Your task to perform on an android device: turn notification dots off Image 0: 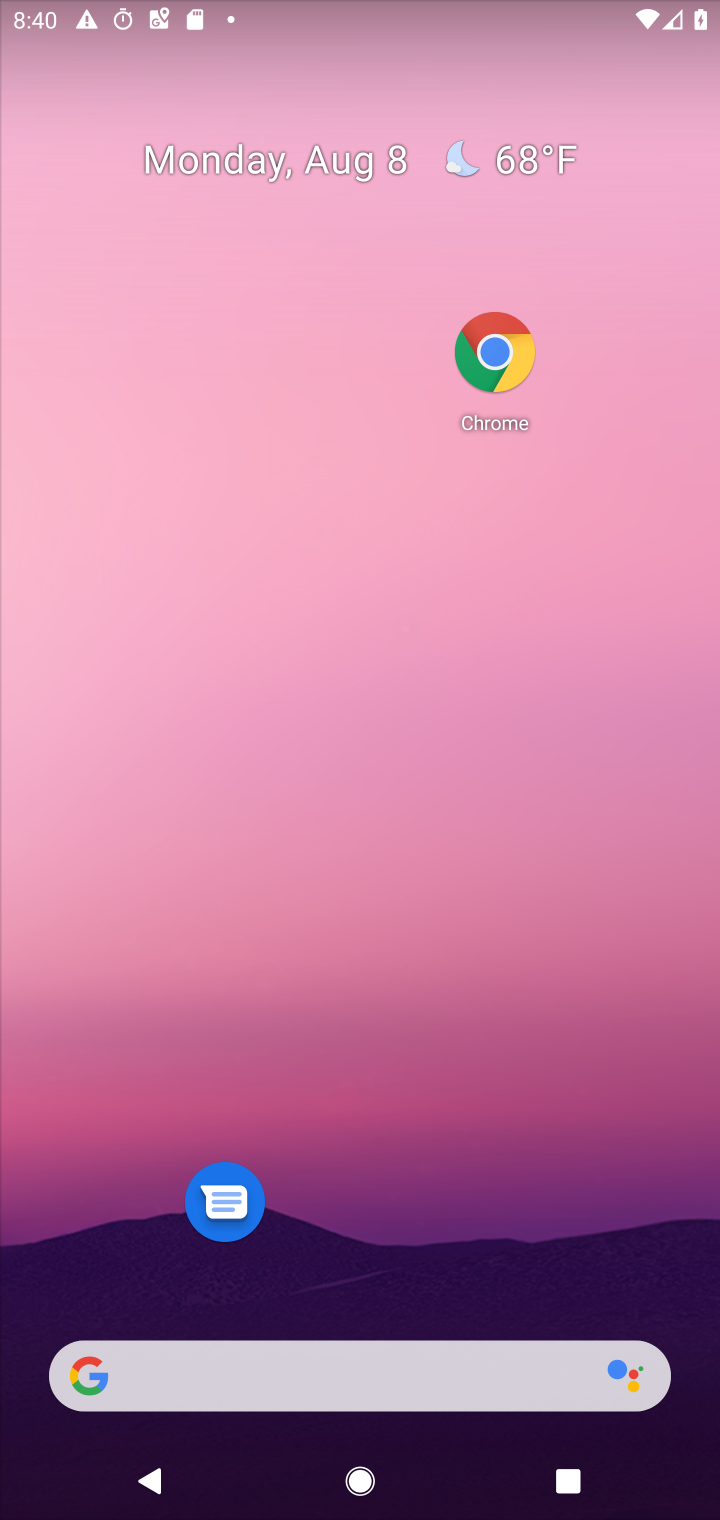
Step 0: drag from (340, 961) to (470, 223)
Your task to perform on an android device: turn notification dots off Image 1: 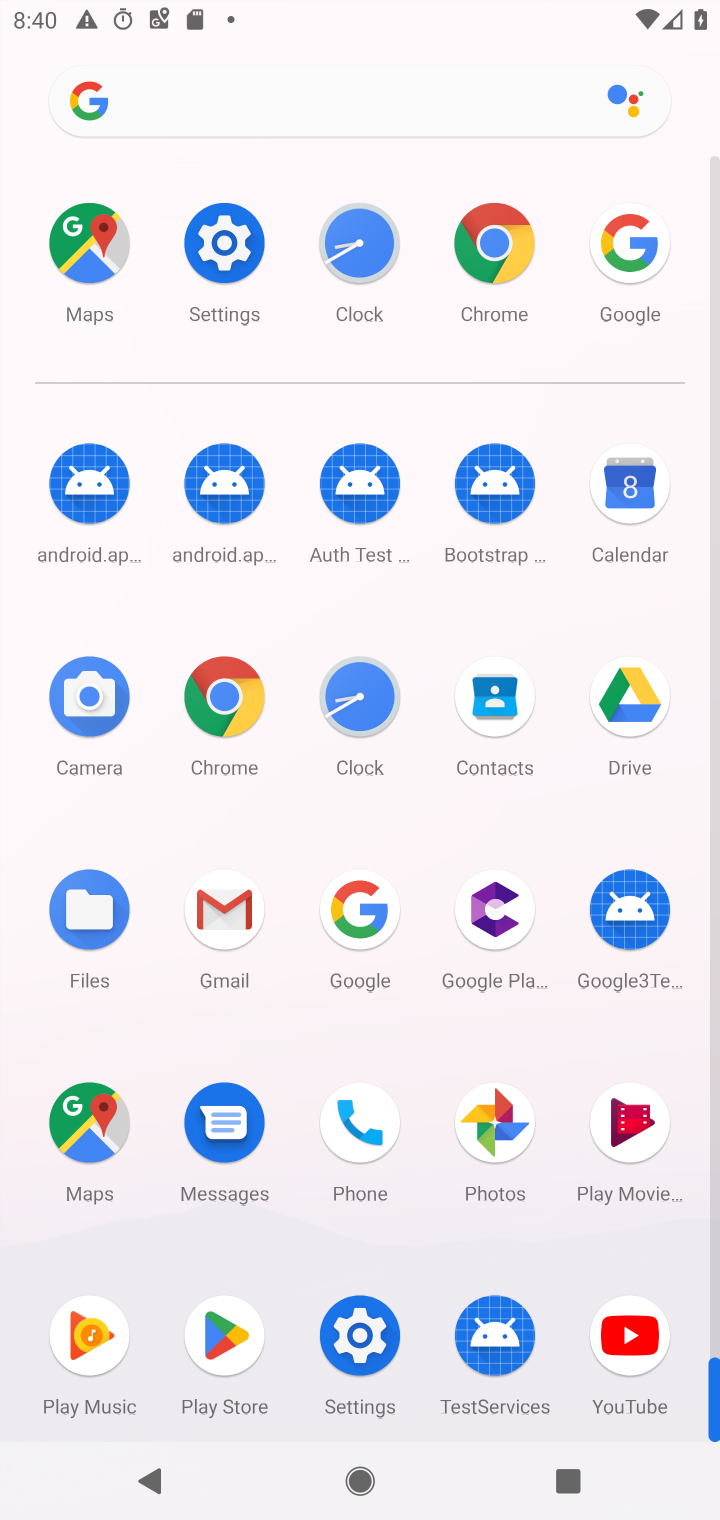
Step 1: click (238, 239)
Your task to perform on an android device: turn notification dots off Image 2: 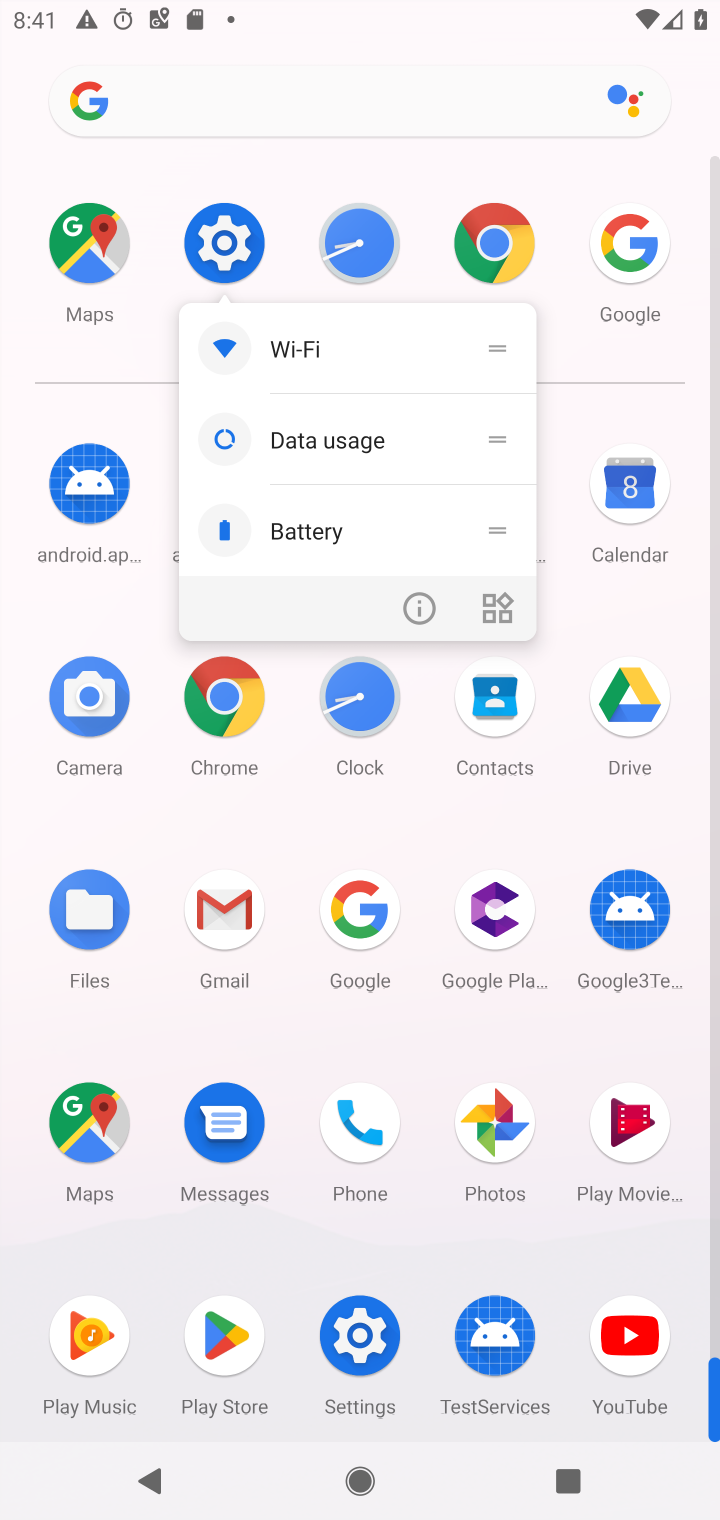
Step 2: click (209, 249)
Your task to perform on an android device: turn notification dots off Image 3: 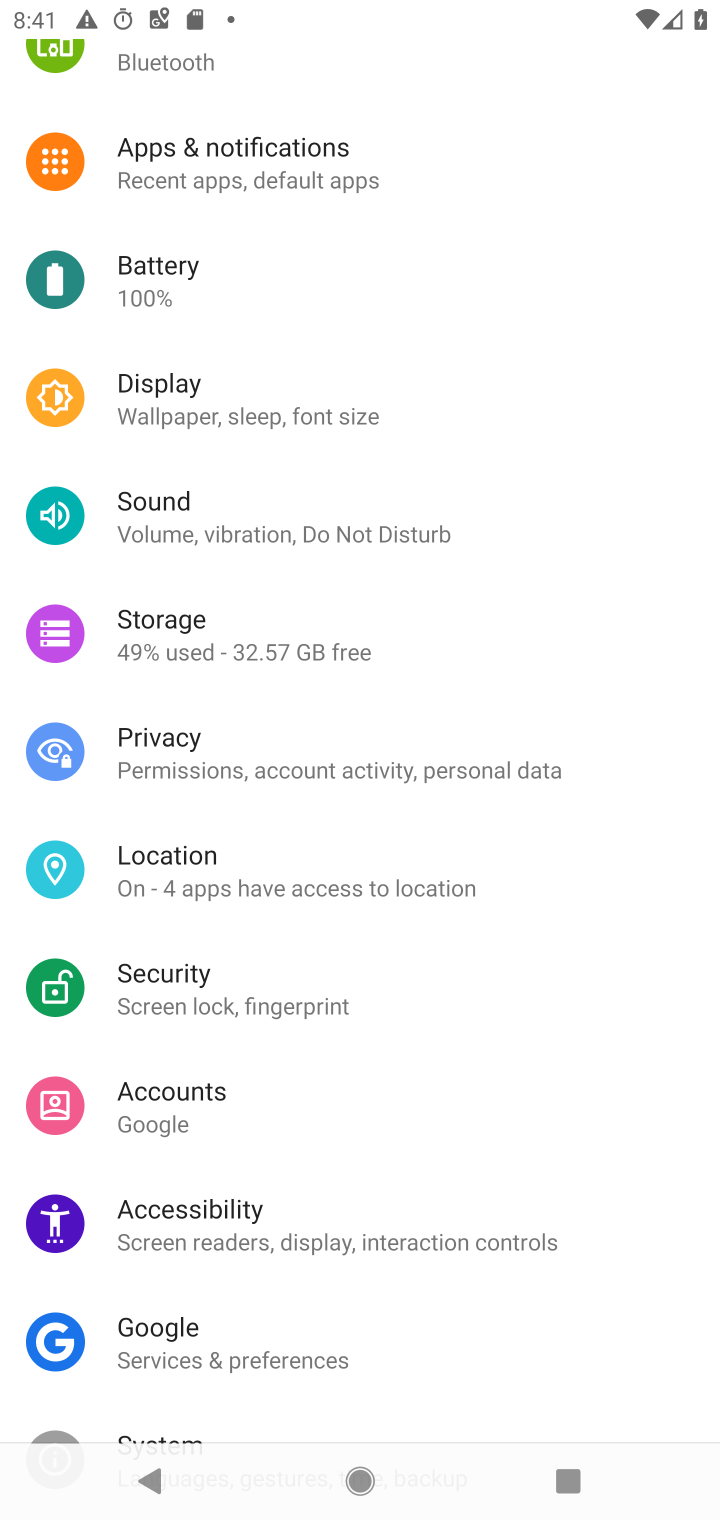
Step 3: click (293, 182)
Your task to perform on an android device: turn notification dots off Image 4: 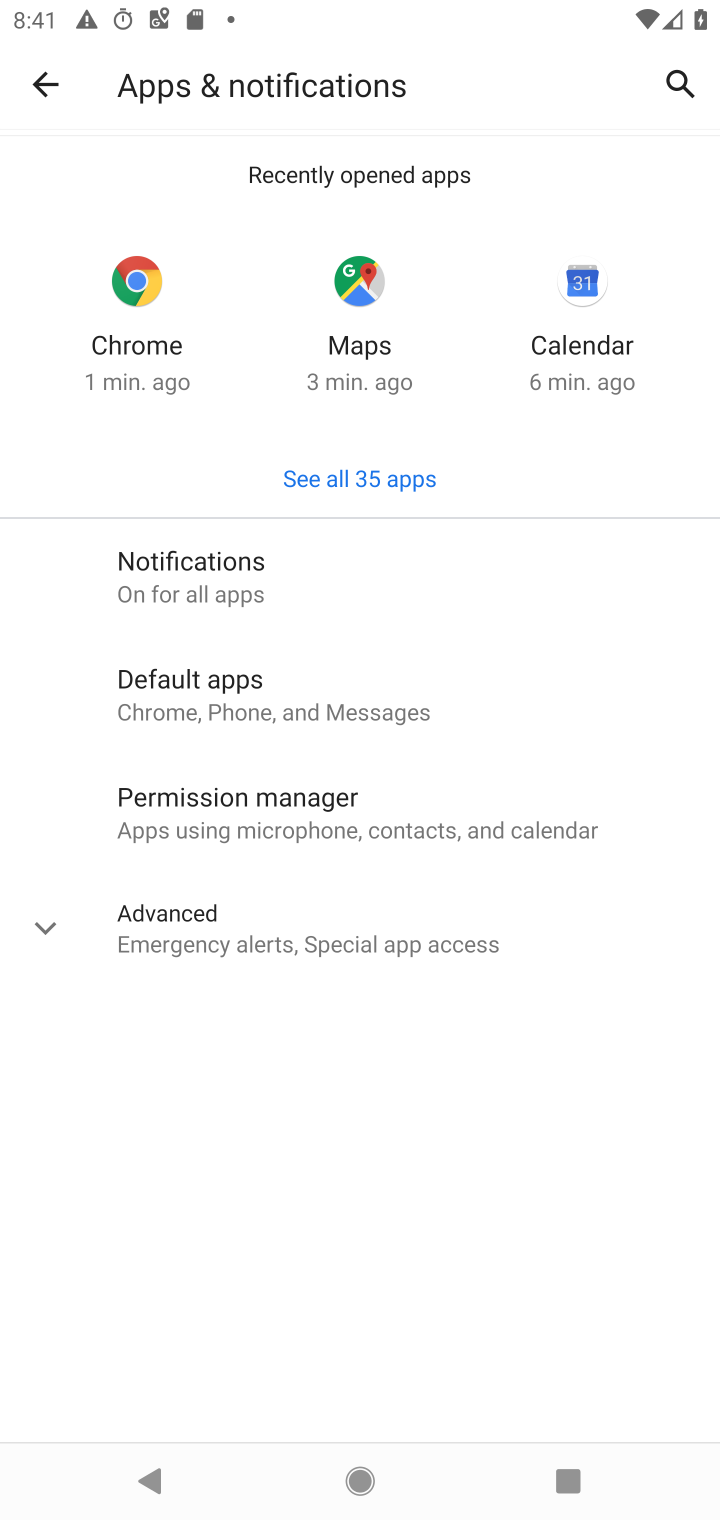
Step 4: click (315, 592)
Your task to perform on an android device: turn notification dots off Image 5: 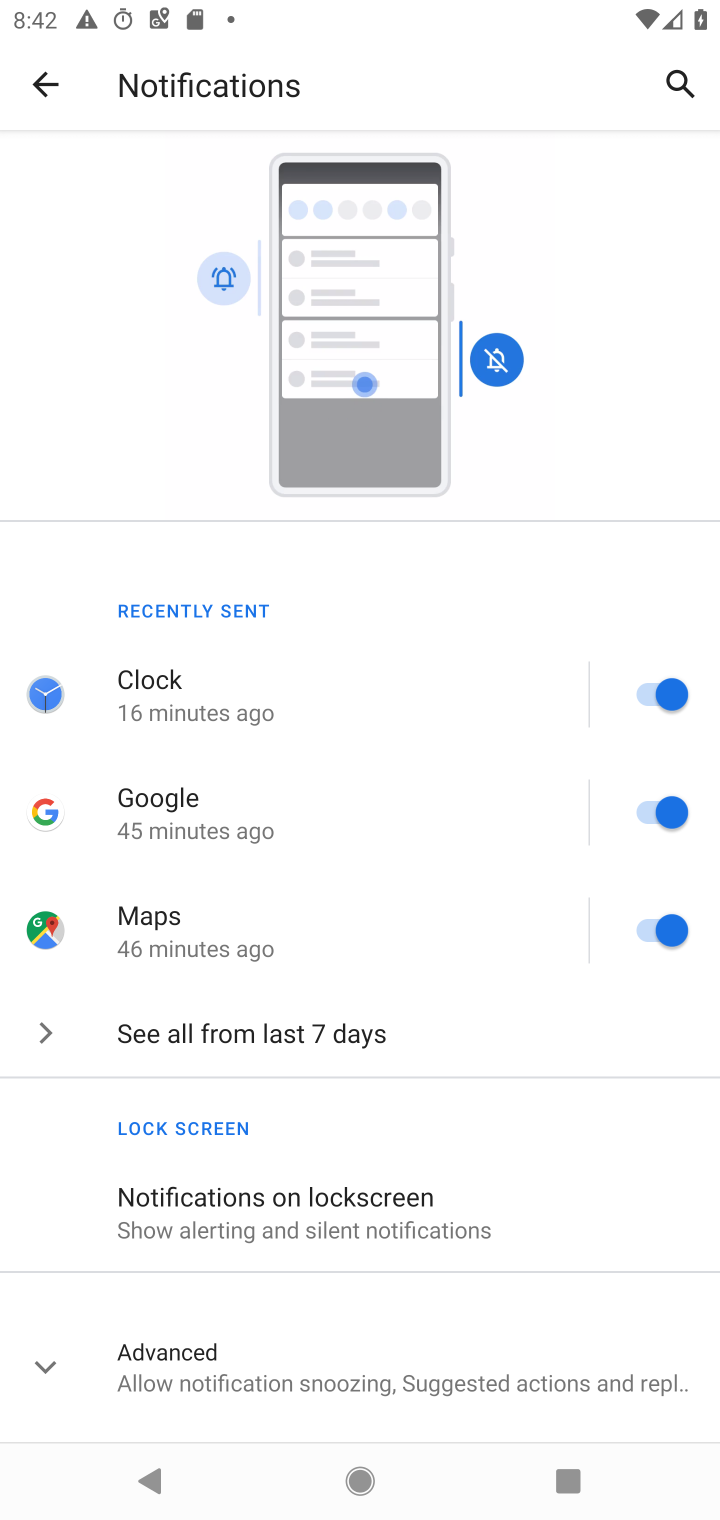
Step 5: click (324, 1365)
Your task to perform on an android device: turn notification dots off Image 6: 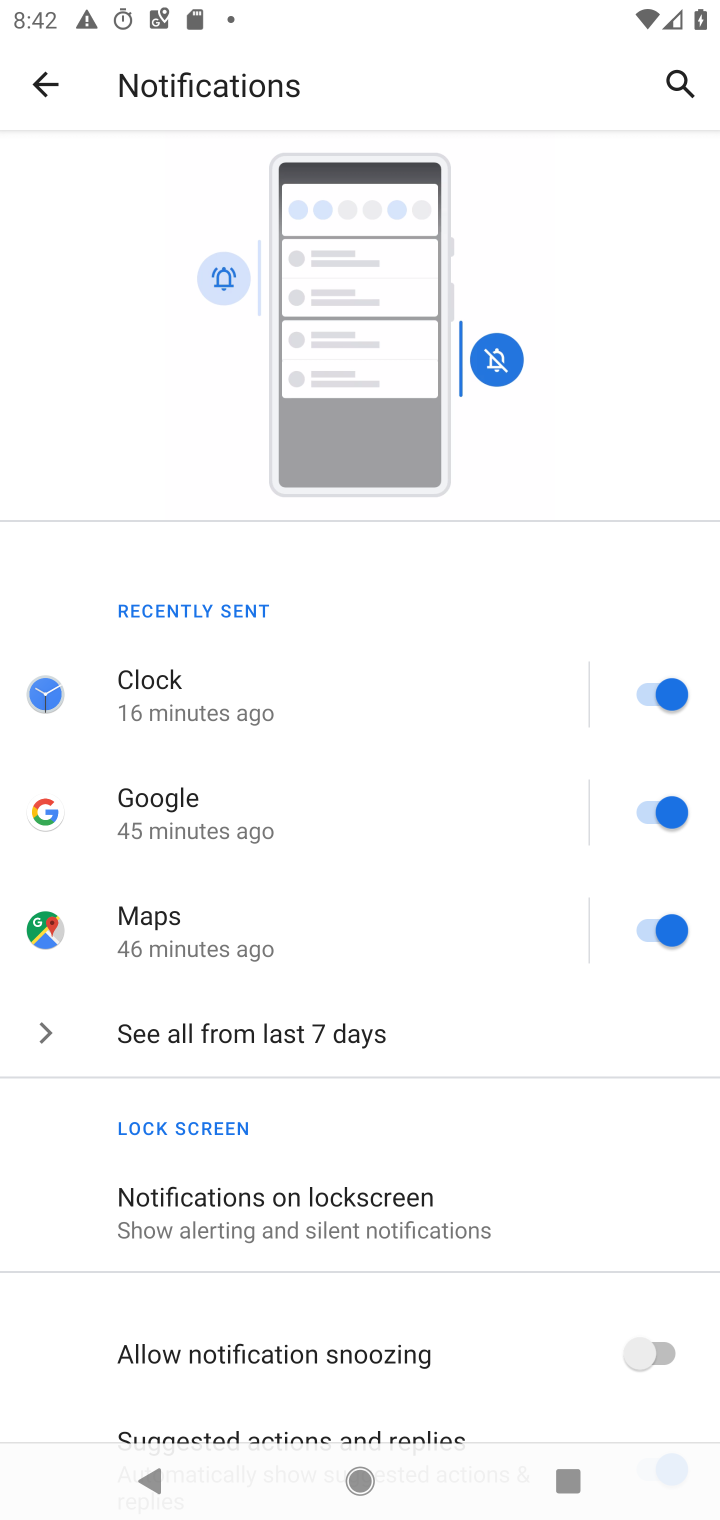
Step 6: drag from (440, 195) to (349, 38)
Your task to perform on an android device: turn notification dots off Image 7: 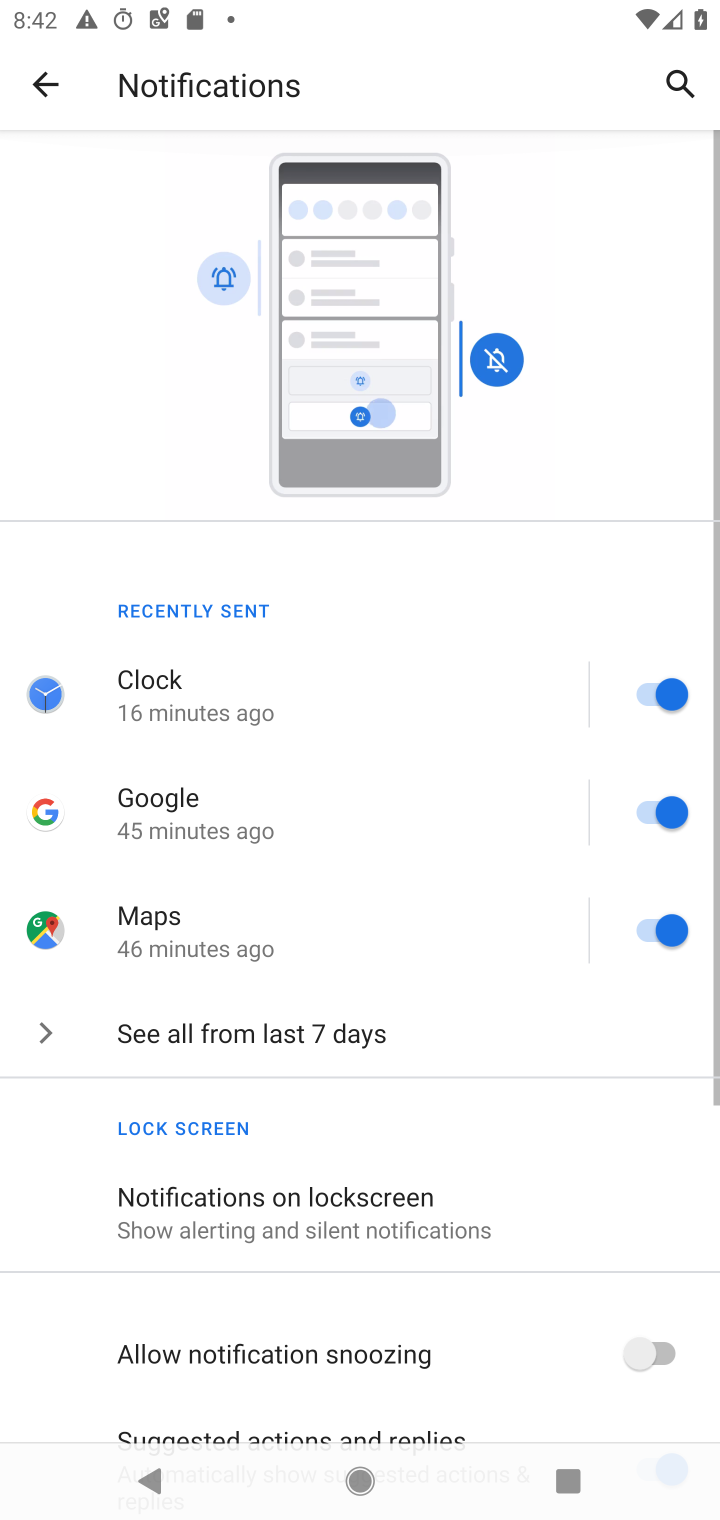
Step 7: drag from (304, 1254) to (385, 349)
Your task to perform on an android device: turn notification dots off Image 8: 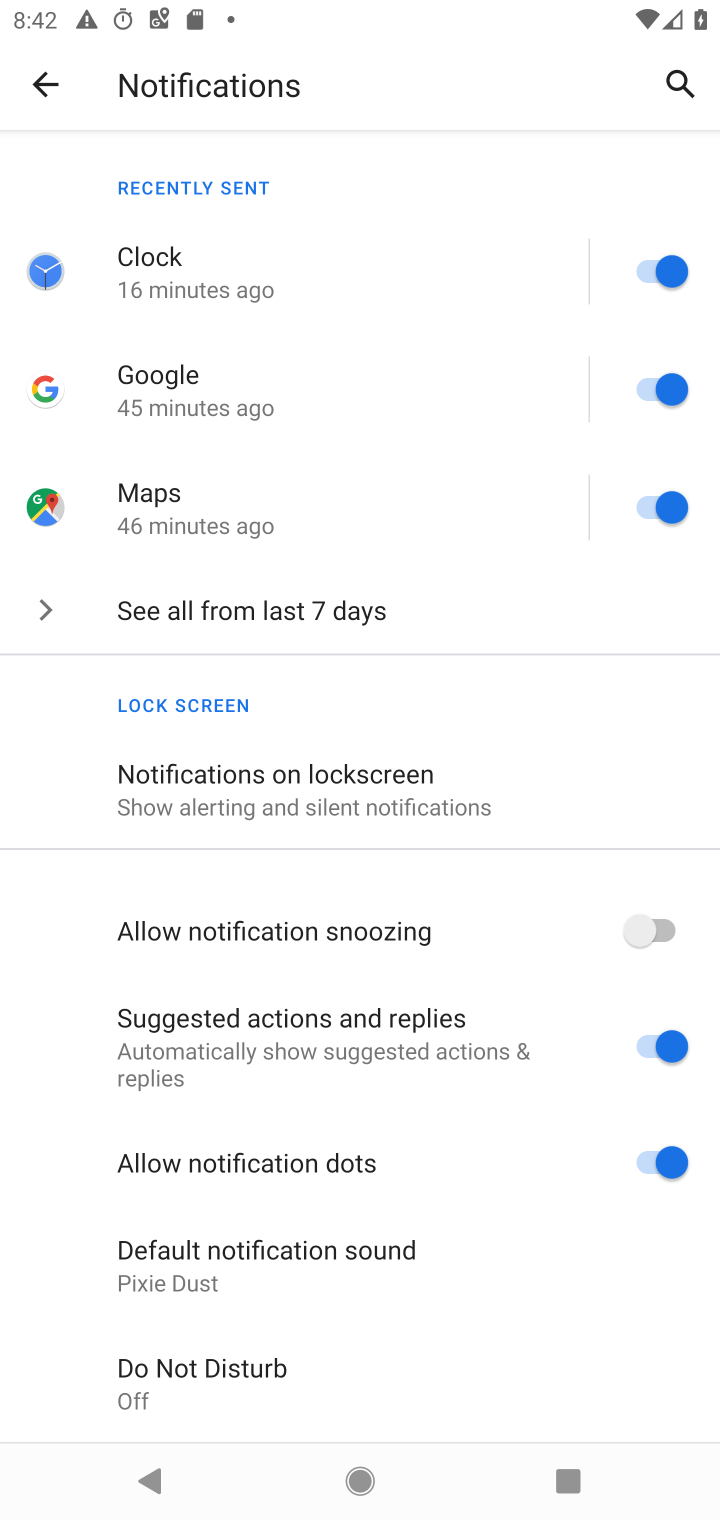
Step 8: click (643, 1168)
Your task to perform on an android device: turn notification dots off Image 9: 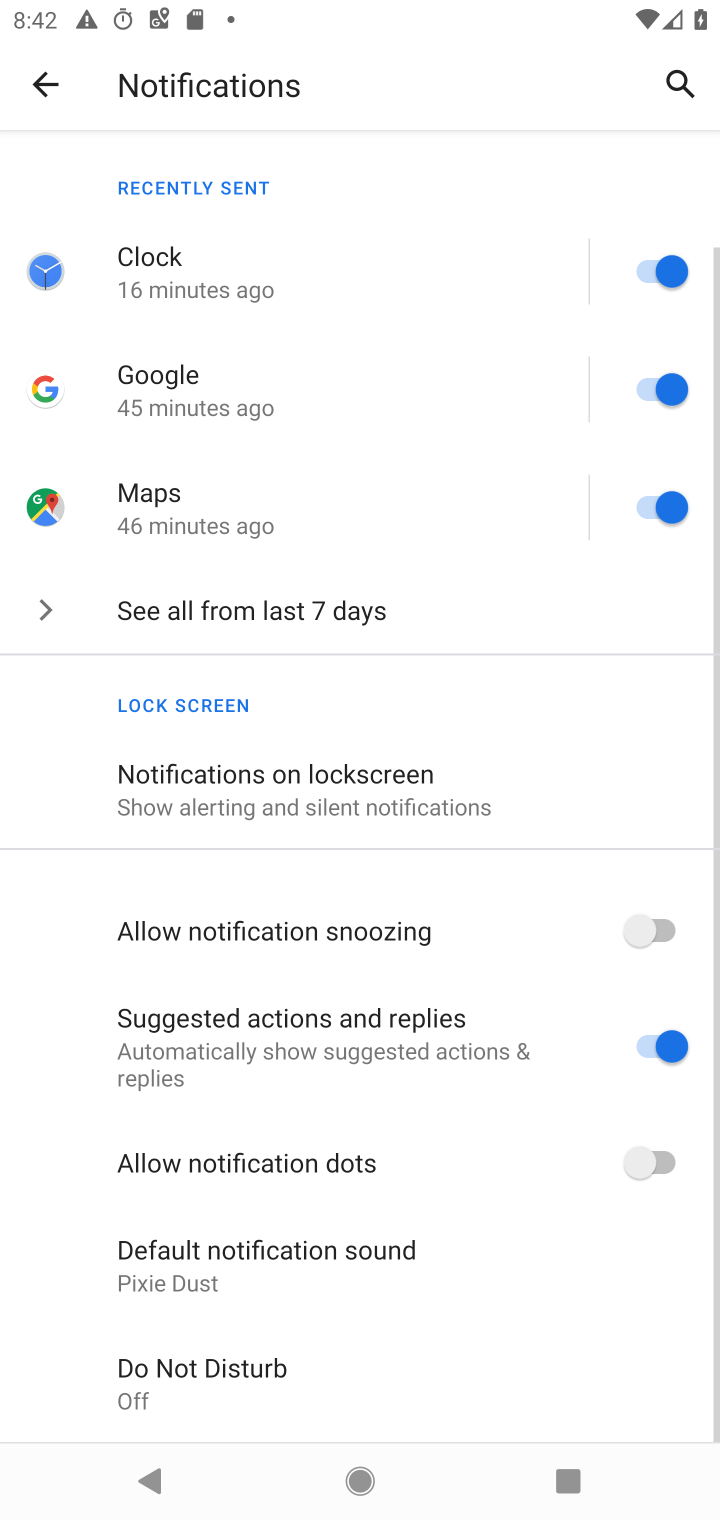
Step 9: task complete